Your task to perform on an android device: Show the shopping cart on amazon.com. Add "alienware aurora" to the cart on amazon.com, then select checkout. Image 0: 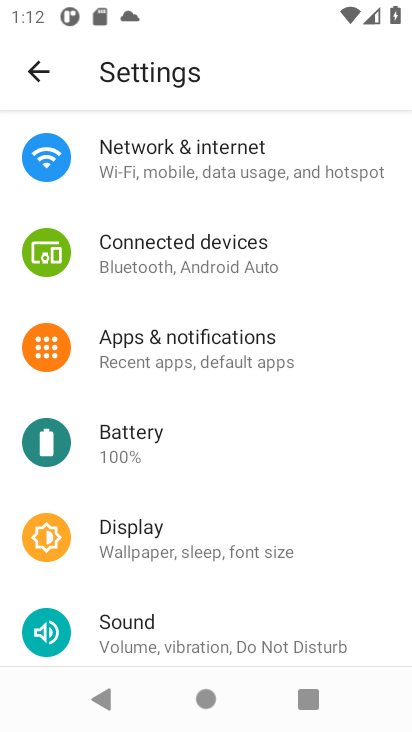
Step 0: press home button
Your task to perform on an android device: Show the shopping cart on amazon.com. Add "alienware aurora" to the cart on amazon.com, then select checkout. Image 1: 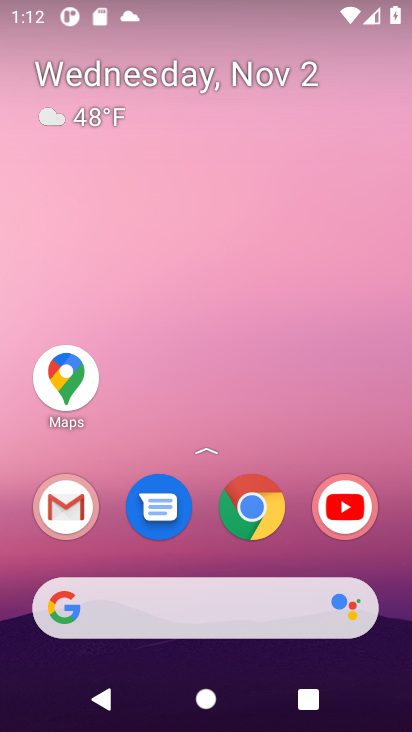
Step 1: click (200, 605)
Your task to perform on an android device: Show the shopping cart on amazon.com. Add "alienware aurora" to the cart on amazon.com, then select checkout. Image 2: 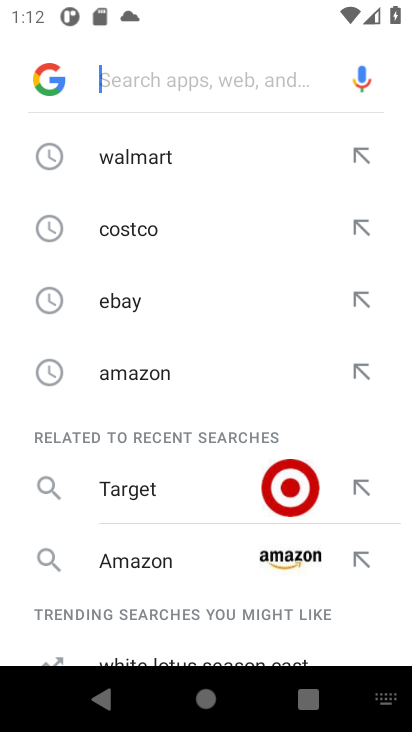
Step 2: type "amazon.com"
Your task to perform on an android device: Show the shopping cart on amazon.com. Add "alienware aurora" to the cart on amazon.com, then select checkout. Image 3: 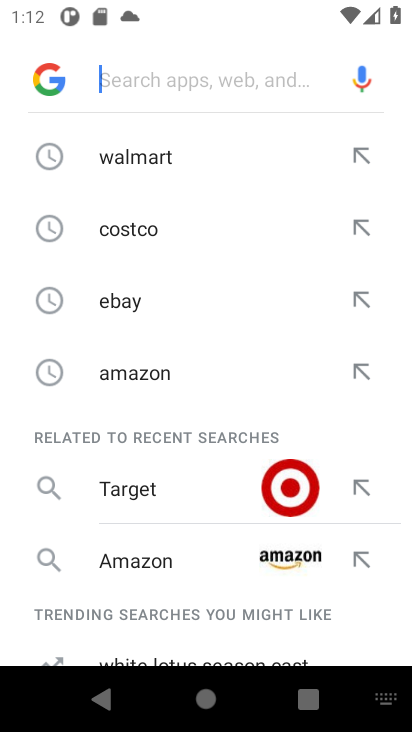
Step 3: click (162, 380)
Your task to perform on an android device: Show the shopping cart on amazon.com. Add "alienware aurora" to the cart on amazon.com, then select checkout. Image 4: 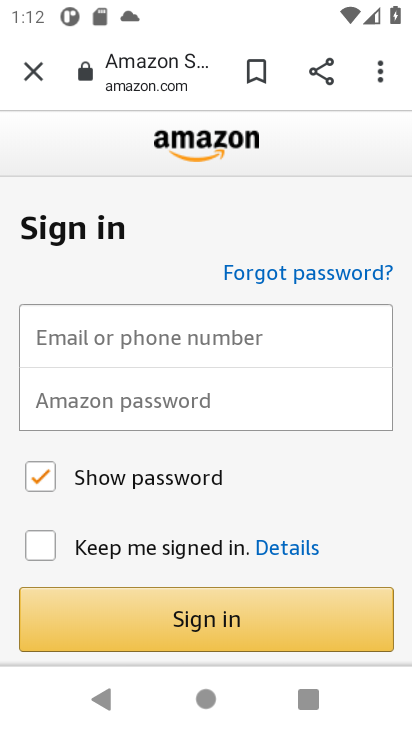
Step 4: click (207, 157)
Your task to perform on an android device: Show the shopping cart on amazon.com. Add "alienware aurora" to the cart on amazon.com, then select checkout. Image 5: 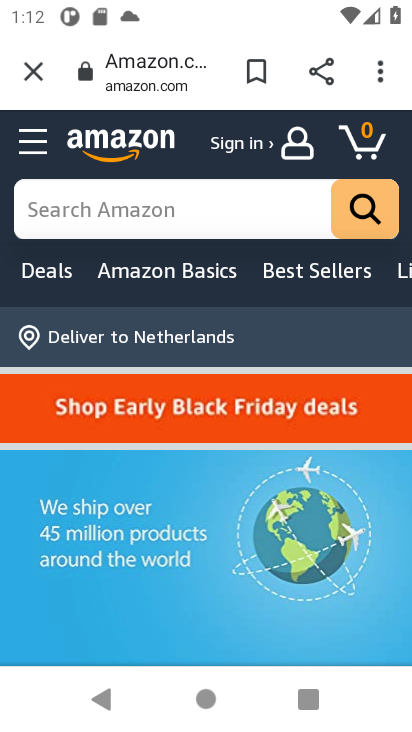
Step 5: click (223, 208)
Your task to perform on an android device: Show the shopping cart on amazon.com. Add "alienware aurora" to the cart on amazon.com, then select checkout. Image 6: 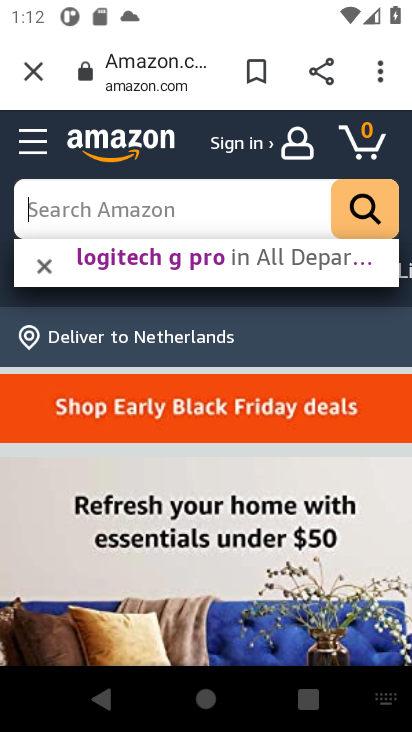
Step 6: type "alienware aurora"
Your task to perform on an android device: Show the shopping cart on amazon.com. Add "alienware aurora" to the cart on amazon.com, then select checkout. Image 7: 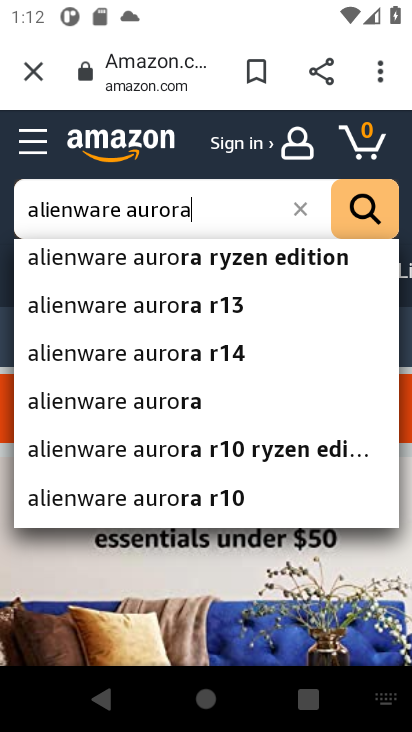
Step 7: type ""
Your task to perform on an android device: Show the shopping cart on amazon.com. Add "alienware aurora" to the cart on amazon.com, then select checkout. Image 8: 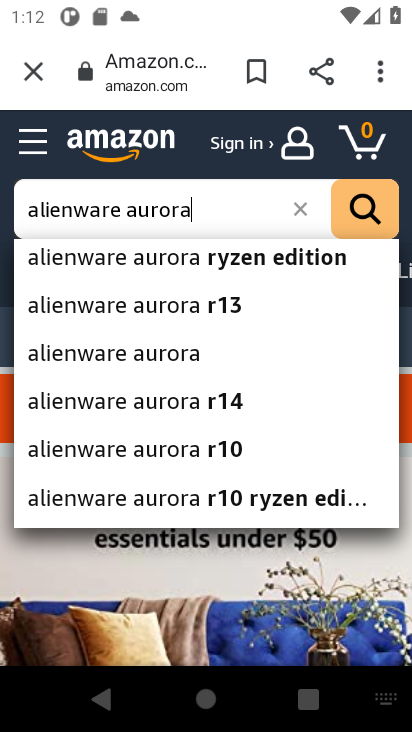
Step 8: click (356, 221)
Your task to perform on an android device: Show the shopping cart on amazon.com. Add "alienware aurora" to the cart on amazon.com, then select checkout. Image 9: 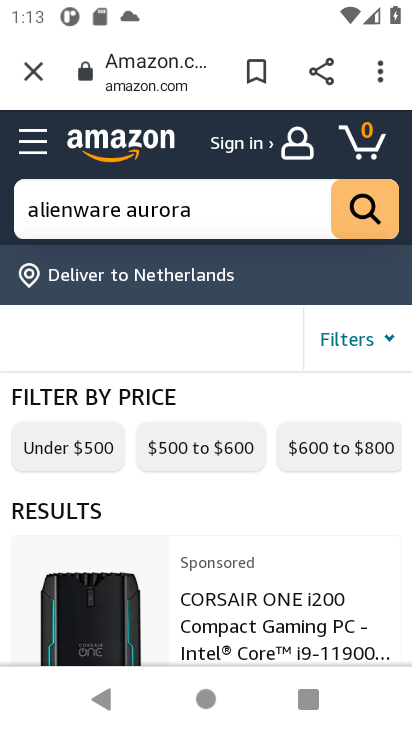
Step 9: drag from (258, 592) to (287, 317)
Your task to perform on an android device: Show the shopping cart on amazon.com. Add "alienware aurora" to the cart on amazon.com, then select checkout. Image 10: 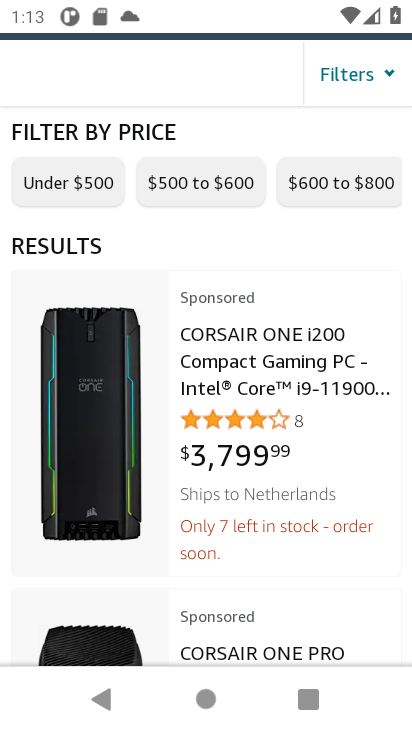
Step 10: drag from (285, 595) to (289, 328)
Your task to perform on an android device: Show the shopping cart on amazon.com. Add "alienware aurora" to the cart on amazon.com, then select checkout. Image 11: 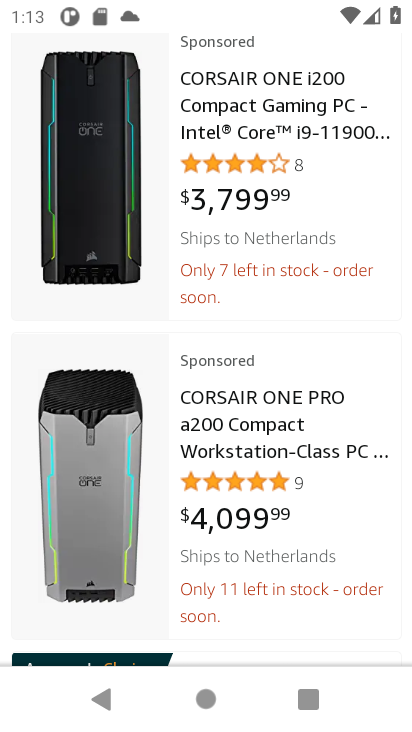
Step 11: drag from (284, 327) to (293, 435)
Your task to perform on an android device: Show the shopping cart on amazon.com. Add "alienware aurora" to the cart on amazon.com, then select checkout. Image 12: 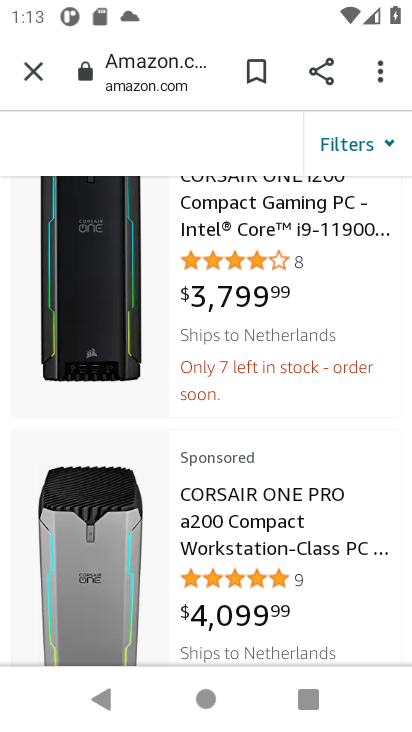
Step 12: drag from (324, 341) to (321, 506)
Your task to perform on an android device: Show the shopping cart on amazon.com. Add "alienware aurora" to the cart on amazon.com, then select checkout. Image 13: 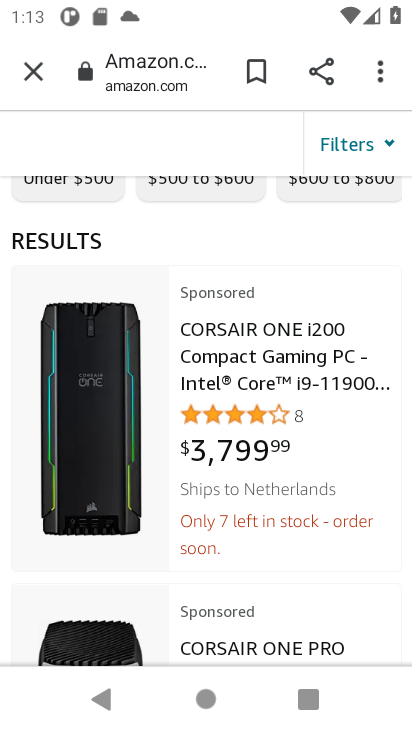
Step 13: drag from (253, 394) to (236, 698)
Your task to perform on an android device: Show the shopping cart on amazon.com. Add "alienware aurora" to the cart on amazon.com, then select checkout. Image 14: 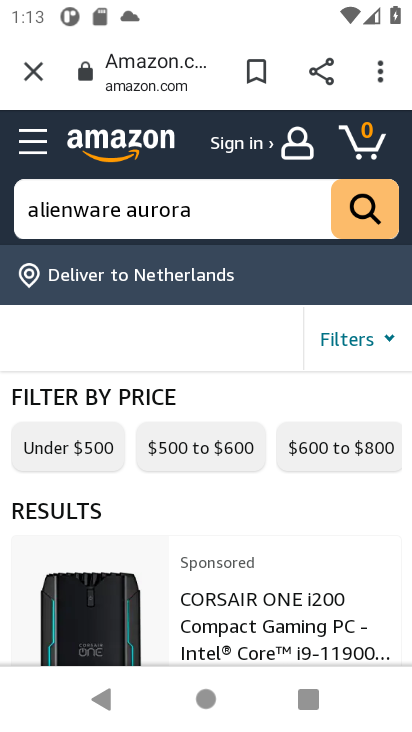
Step 14: drag from (275, 555) to (286, 326)
Your task to perform on an android device: Show the shopping cart on amazon.com. Add "alienware aurora" to the cart on amazon.com, then select checkout. Image 15: 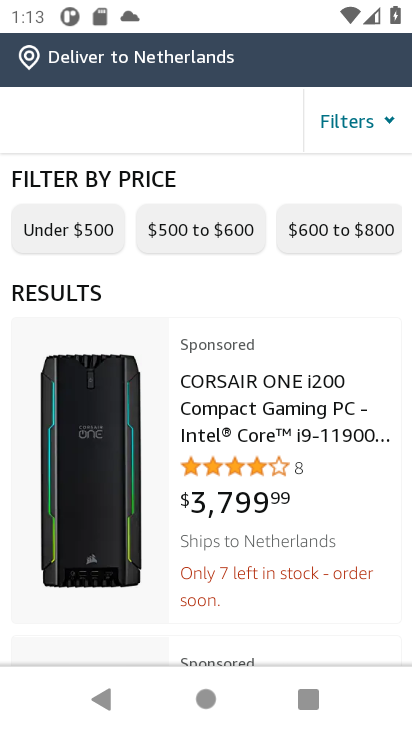
Step 15: click (263, 397)
Your task to perform on an android device: Show the shopping cart on amazon.com. Add "alienware aurora" to the cart on amazon.com, then select checkout. Image 16: 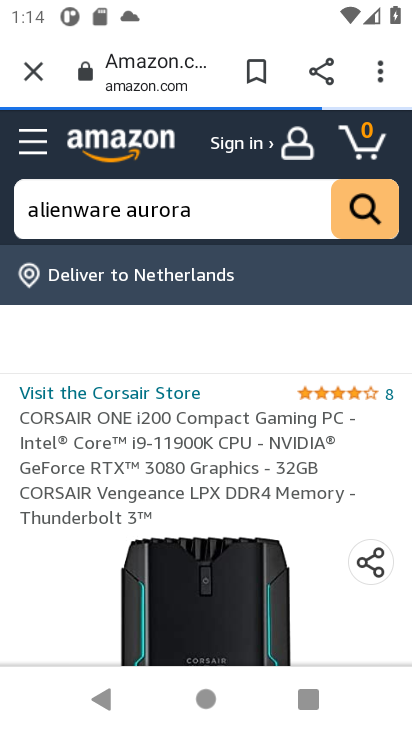
Step 16: drag from (278, 544) to (262, 292)
Your task to perform on an android device: Show the shopping cart on amazon.com. Add "alienware aurora" to the cart on amazon.com, then select checkout. Image 17: 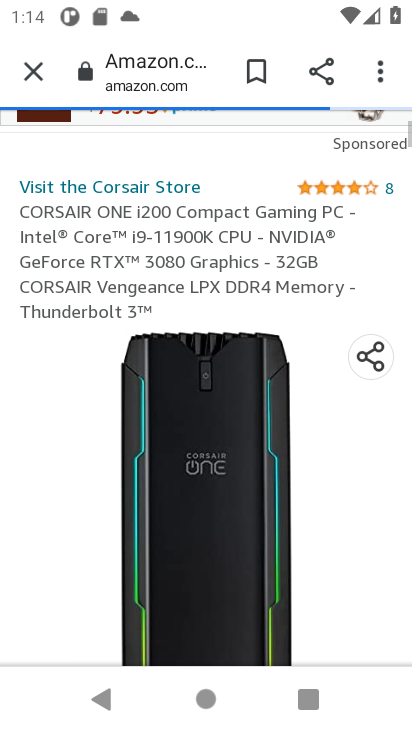
Step 17: click (255, 281)
Your task to perform on an android device: Show the shopping cart on amazon.com. Add "alienware aurora" to the cart on amazon.com, then select checkout. Image 18: 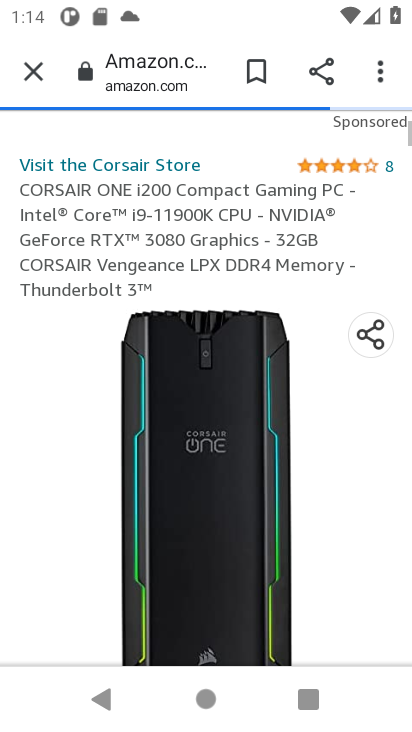
Step 18: click (248, 300)
Your task to perform on an android device: Show the shopping cart on amazon.com. Add "alienware aurora" to the cart on amazon.com, then select checkout. Image 19: 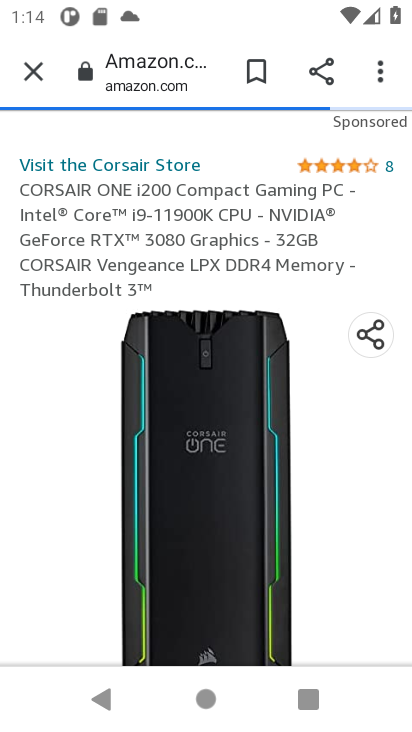
Step 19: drag from (273, 495) to (275, 295)
Your task to perform on an android device: Show the shopping cart on amazon.com. Add "alienware aurora" to the cart on amazon.com, then select checkout. Image 20: 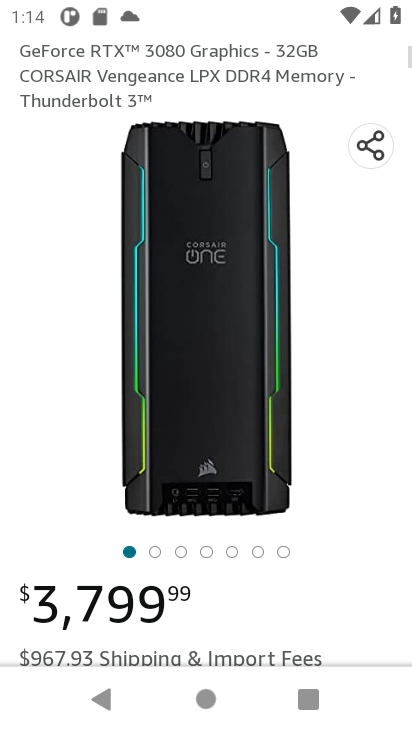
Step 20: drag from (298, 513) to (306, 384)
Your task to perform on an android device: Show the shopping cart on amazon.com. Add "alienware aurora" to the cart on amazon.com, then select checkout. Image 21: 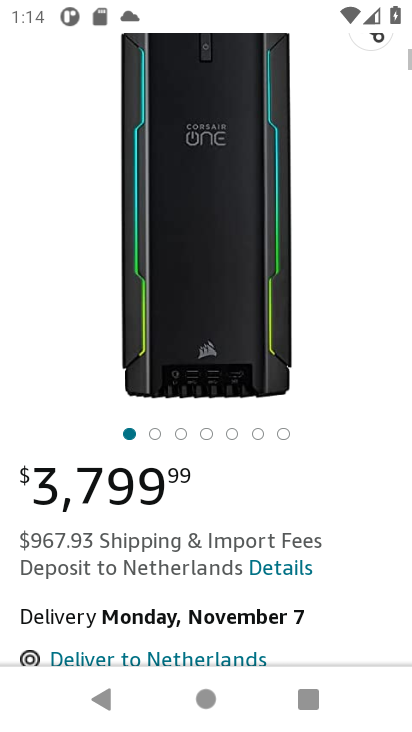
Step 21: drag from (306, 443) to (329, 233)
Your task to perform on an android device: Show the shopping cart on amazon.com. Add "alienware aurora" to the cart on amazon.com, then select checkout. Image 22: 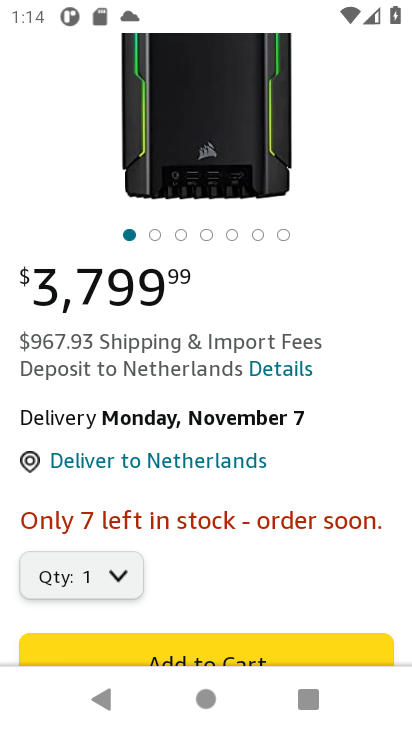
Step 22: drag from (281, 564) to (333, 224)
Your task to perform on an android device: Show the shopping cart on amazon.com. Add "alienware aurora" to the cart on amazon.com, then select checkout. Image 23: 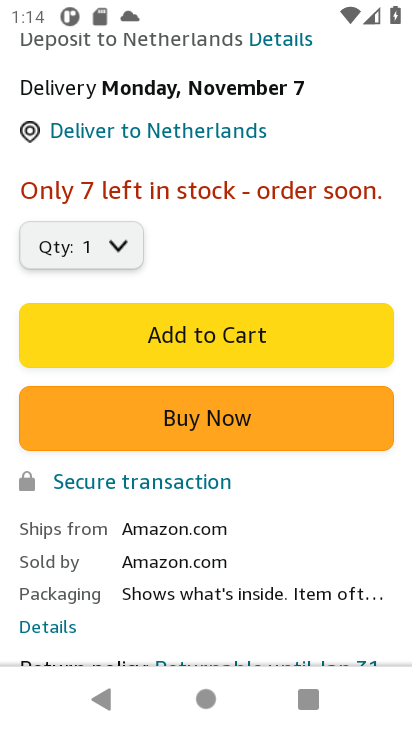
Step 23: click (213, 354)
Your task to perform on an android device: Show the shopping cart on amazon.com. Add "alienware aurora" to the cart on amazon.com, then select checkout. Image 24: 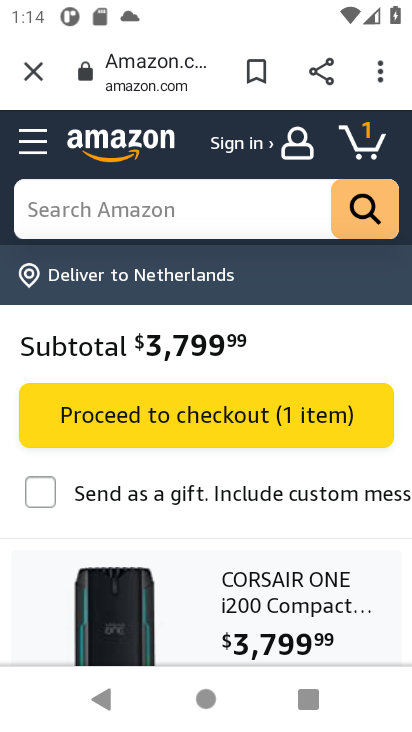
Step 24: drag from (274, 610) to (313, 221)
Your task to perform on an android device: Show the shopping cart on amazon.com. Add "alienware aurora" to the cart on amazon.com, then select checkout. Image 25: 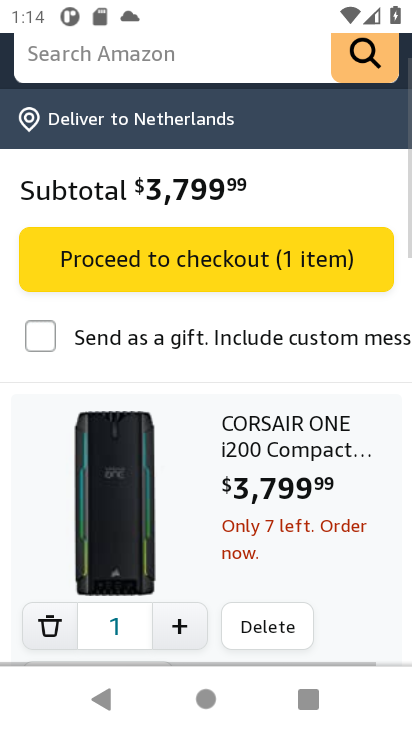
Step 25: drag from (306, 503) to (314, 304)
Your task to perform on an android device: Show the shopping cart on amazon.com. Add "alienware aurora" to the cart on amazon.com, then select checkout. Image 26: 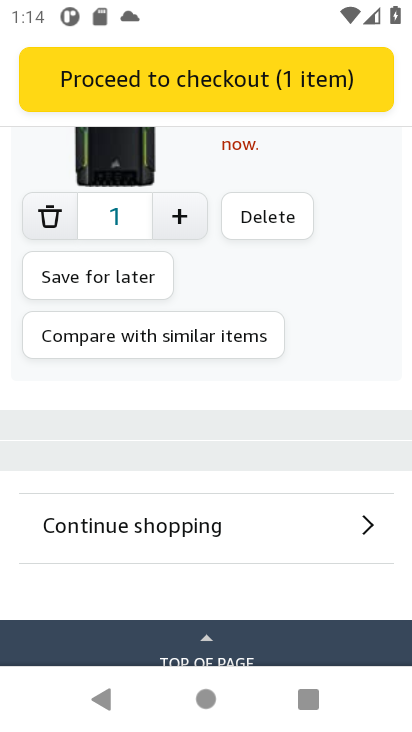
Step 26: drag from (307, 263) to (307, 648)
Your task to perform on an android device: Show the shopping cart on amazon.com. Add "alienware aurora" to the cart on amazon.com, then select checkout. Image 27: 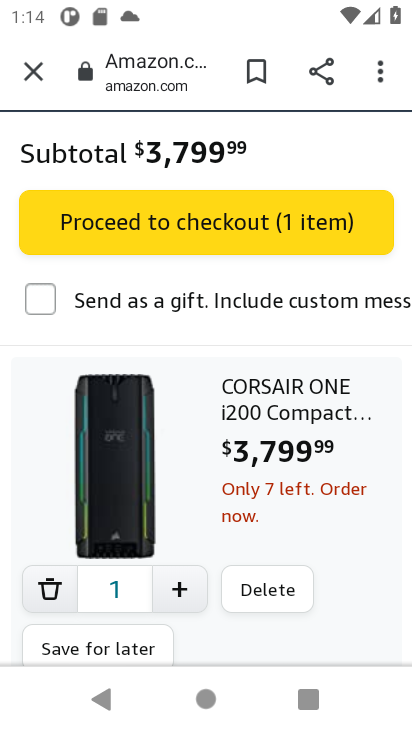
Step 27: click (228, 234)
Your task to perform on an android device: Show the shopping cart on amazon.com. Add "alienware aurora" to the cart on amazon.com, then select checkout. Image 28: 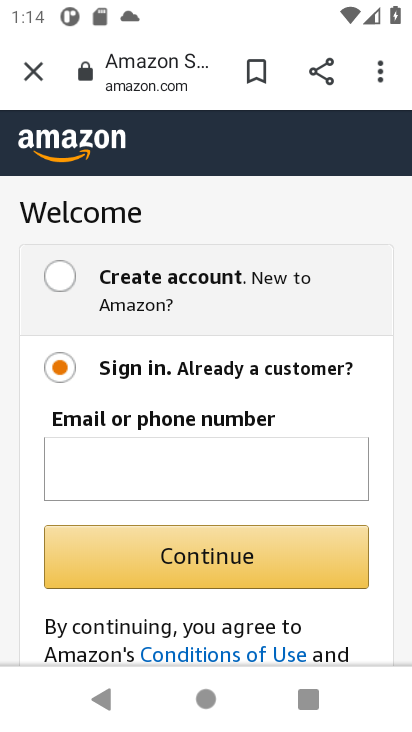
Step 28: task complete